Your task to perform on an android device: open app "Clock" (install if not already installed) Image 0: 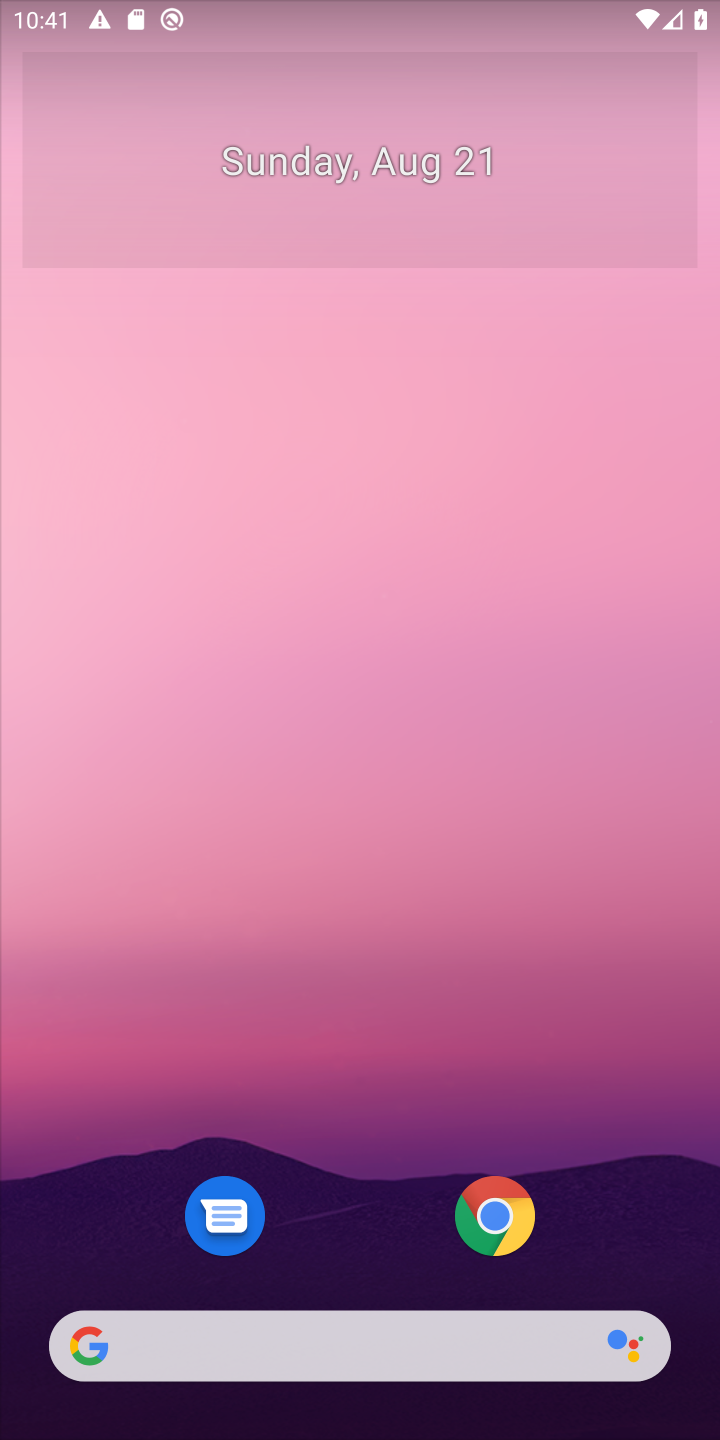
Step 0: drag from (225, 1306) to (0, 535)
Your task to perform on an android device: open app "Clock" (install if not already installed) Image 1: 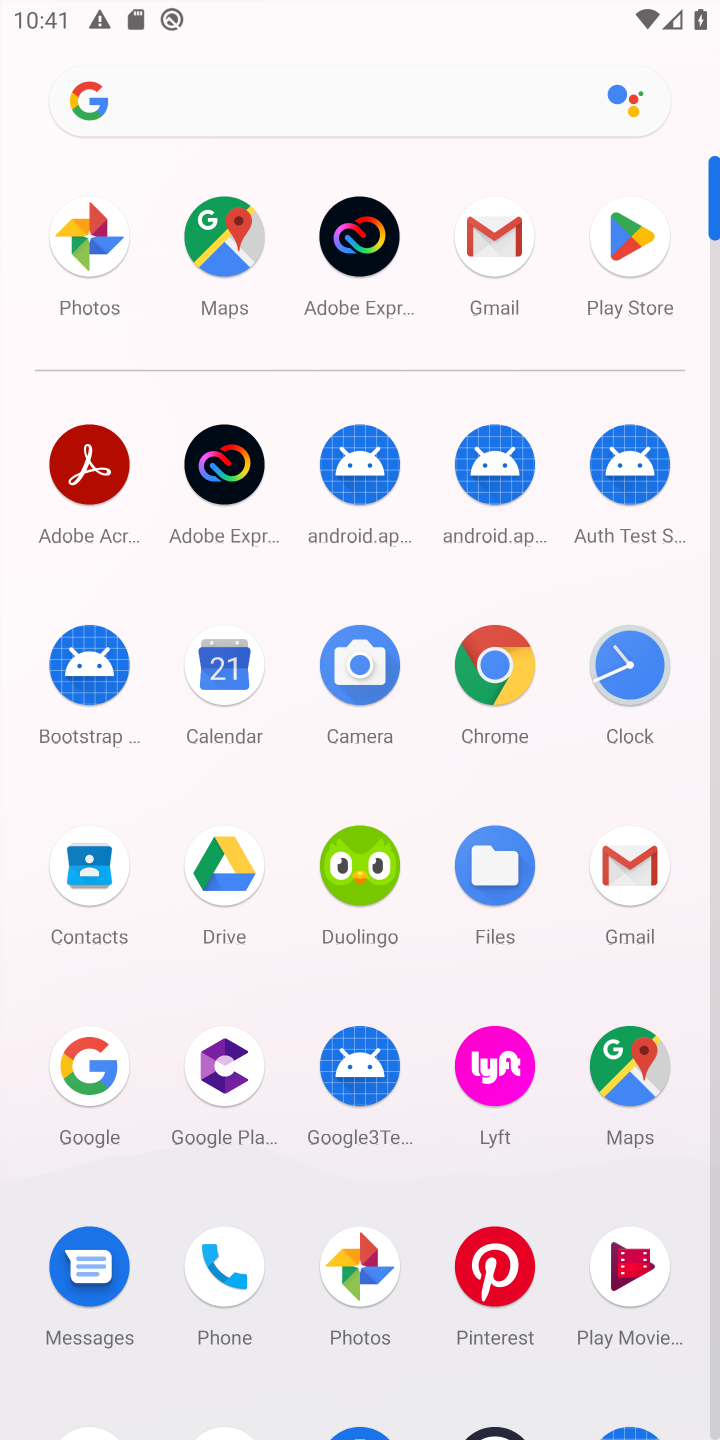
Step 1: click (616, 237)
Your task to perform on an android device: open app "Clock" (install if not already installed) Image 2: 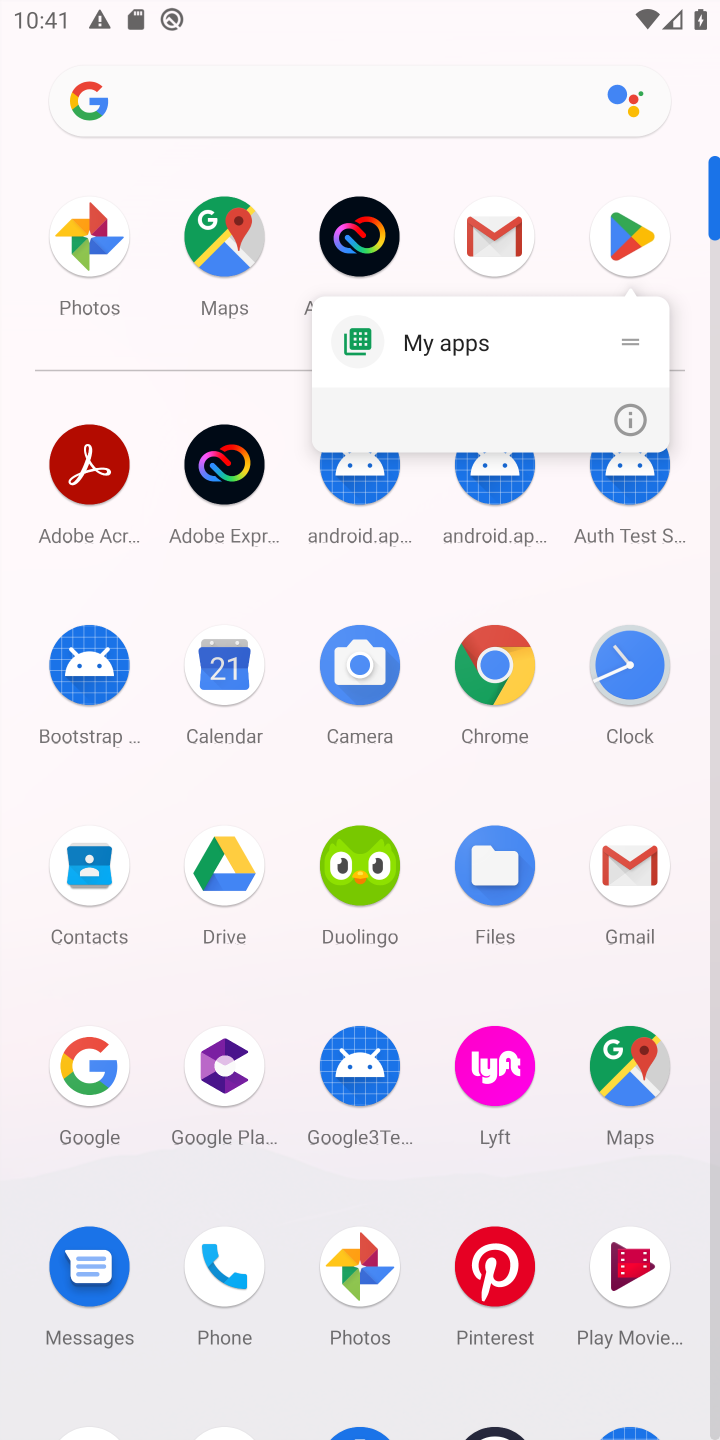
Step 2: click (616, 237)
Your task to perform on an android device: open app "Clock" (install if not already installed) Image 3: 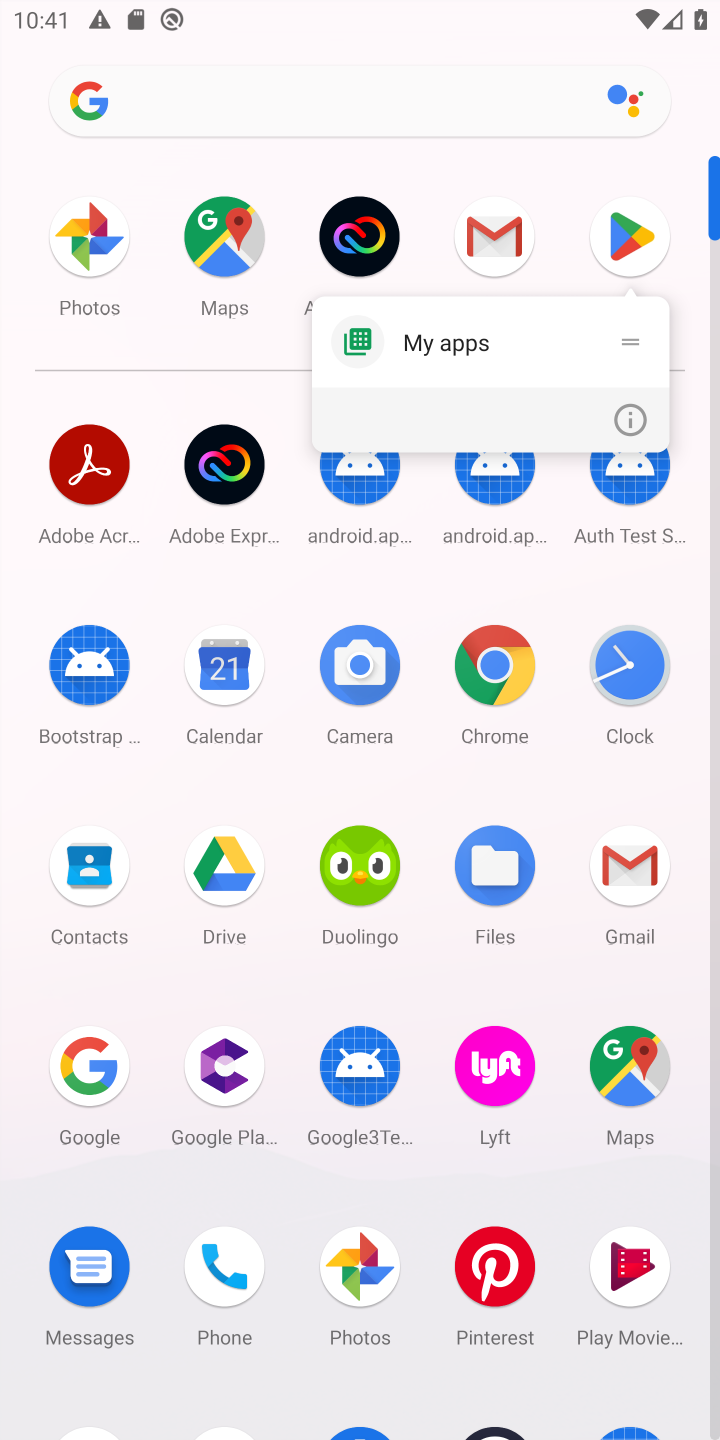
Step 3: click (617, 237)
Your task to perform on an android device: open app "Clock" (install if not already installed) Image 4: 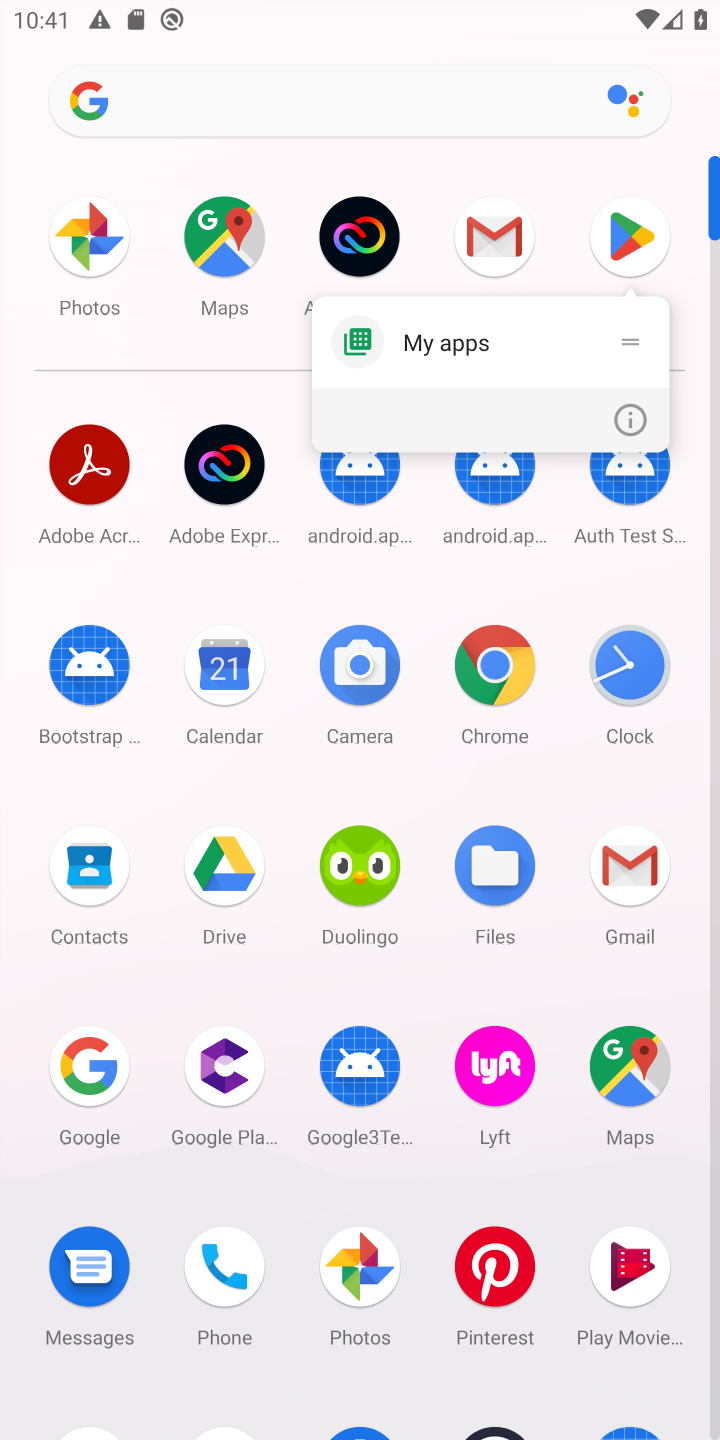
Step 4: click (638, 225)
Your task to perform on an android device: open app "Clock" (install if not already installed) Image 5: 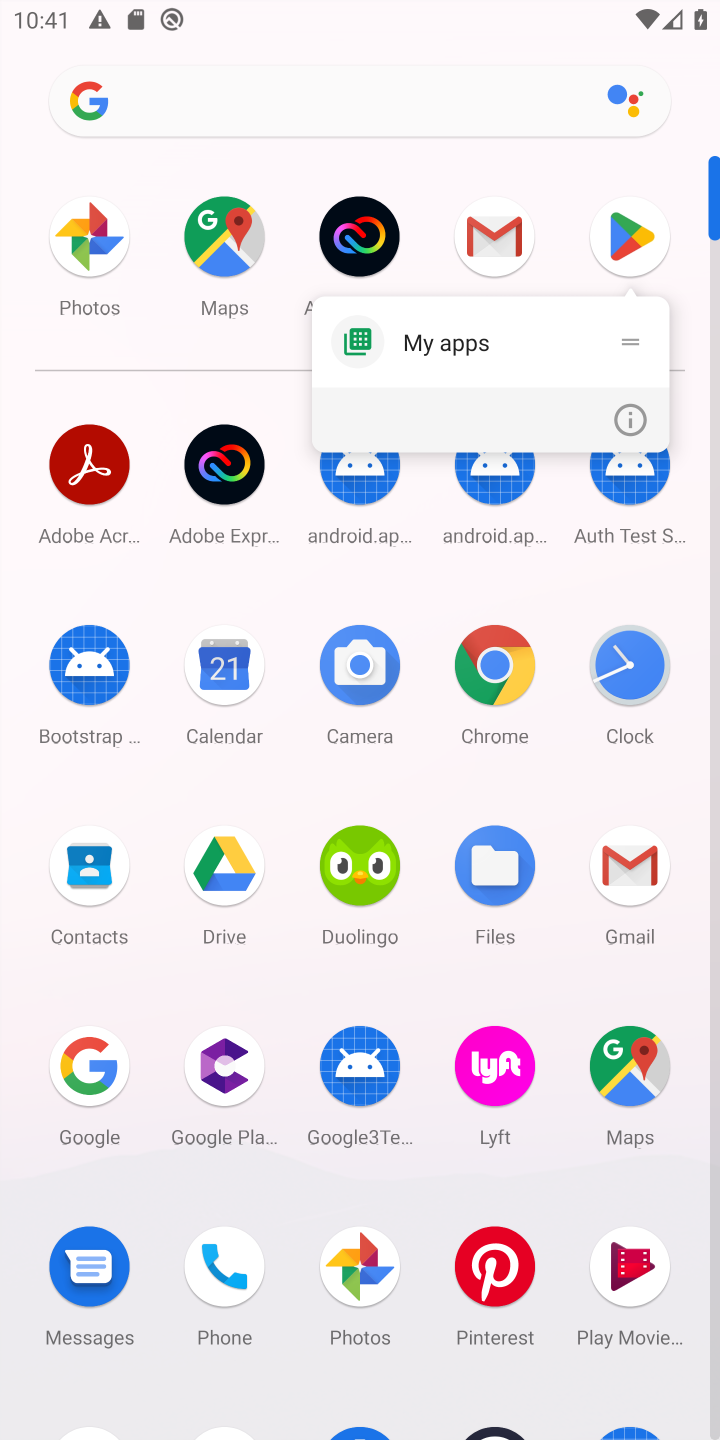
Step 5: click (640, 225)
Your task to perform on an android device: open app "Clock" (install if not already installed) Image 6: 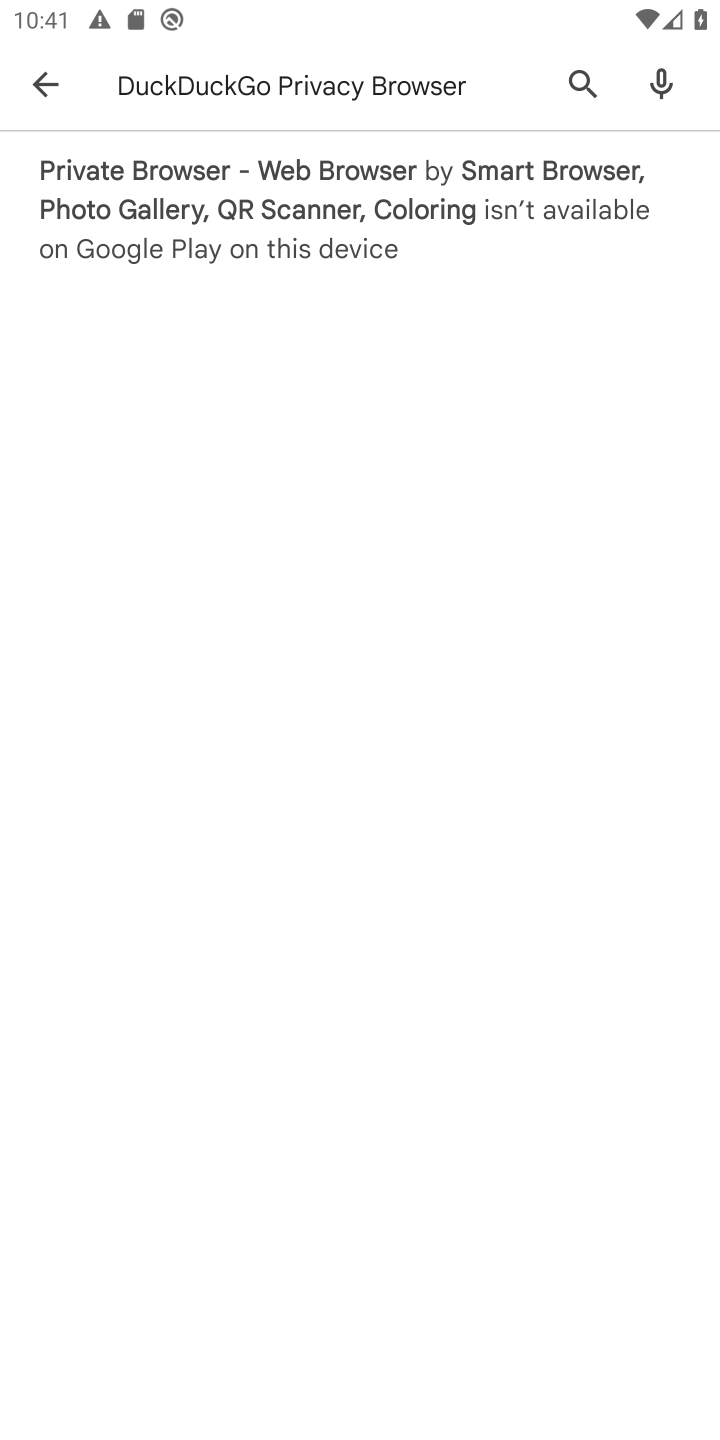
Step 6: press back button
Your task to perform on an android device: open app "Clock" (install if not already installed) Image 7: 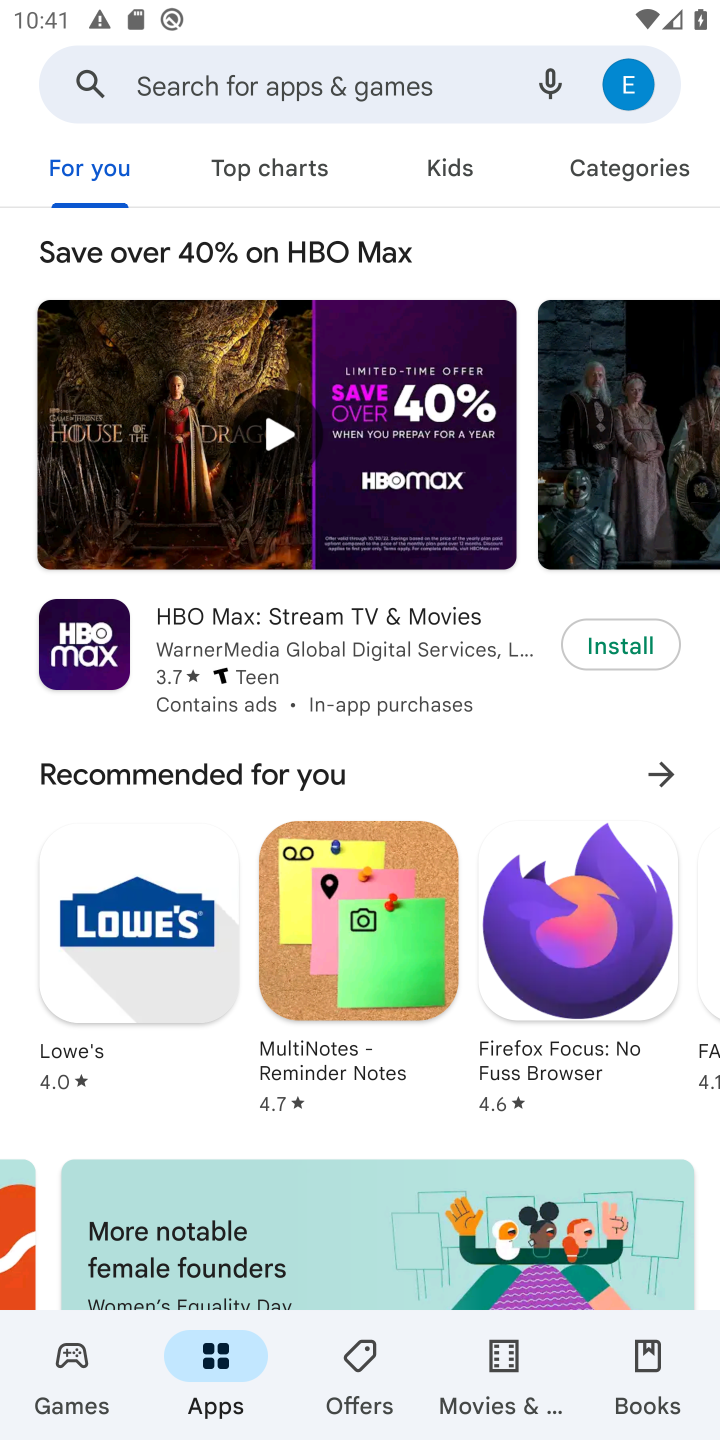
Step 7: click (228, 72)
Your task to perform on an android device: open app "Clock" (install if not already installed) Image 8: 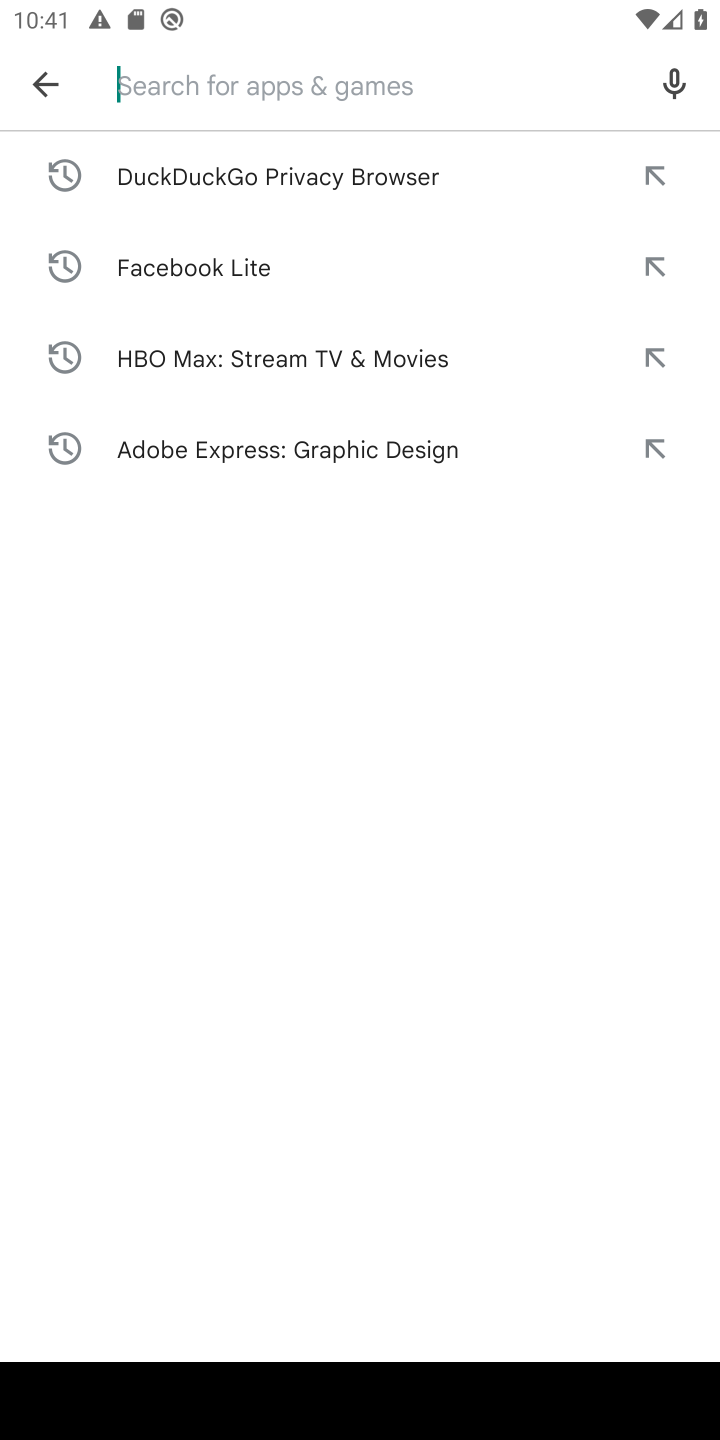
Step 8: type "Clock"
Your task to perform on an android device: open app "Clock" (install if not already installed) Image 9: 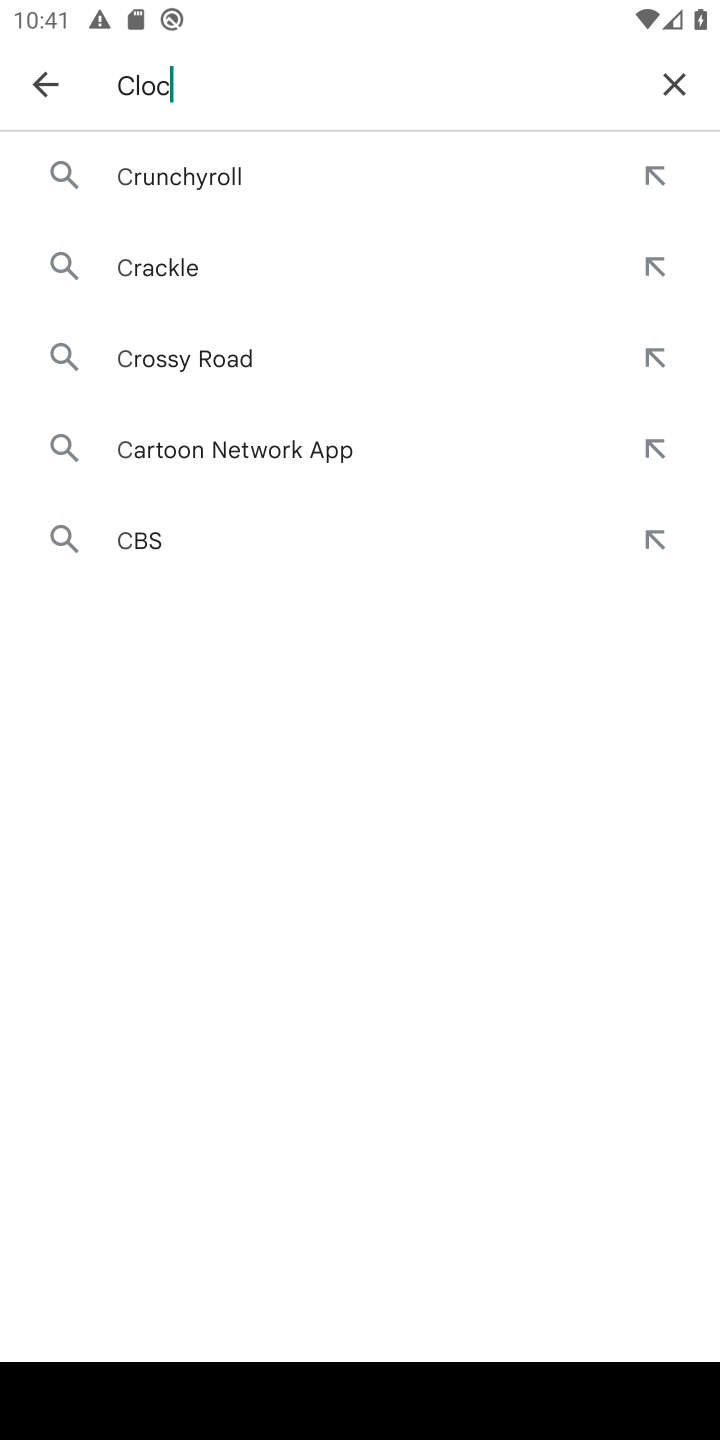
Step 9: press enter
Your task to perform on an android device: open app "Clock" (install if not already installed) Image 10: 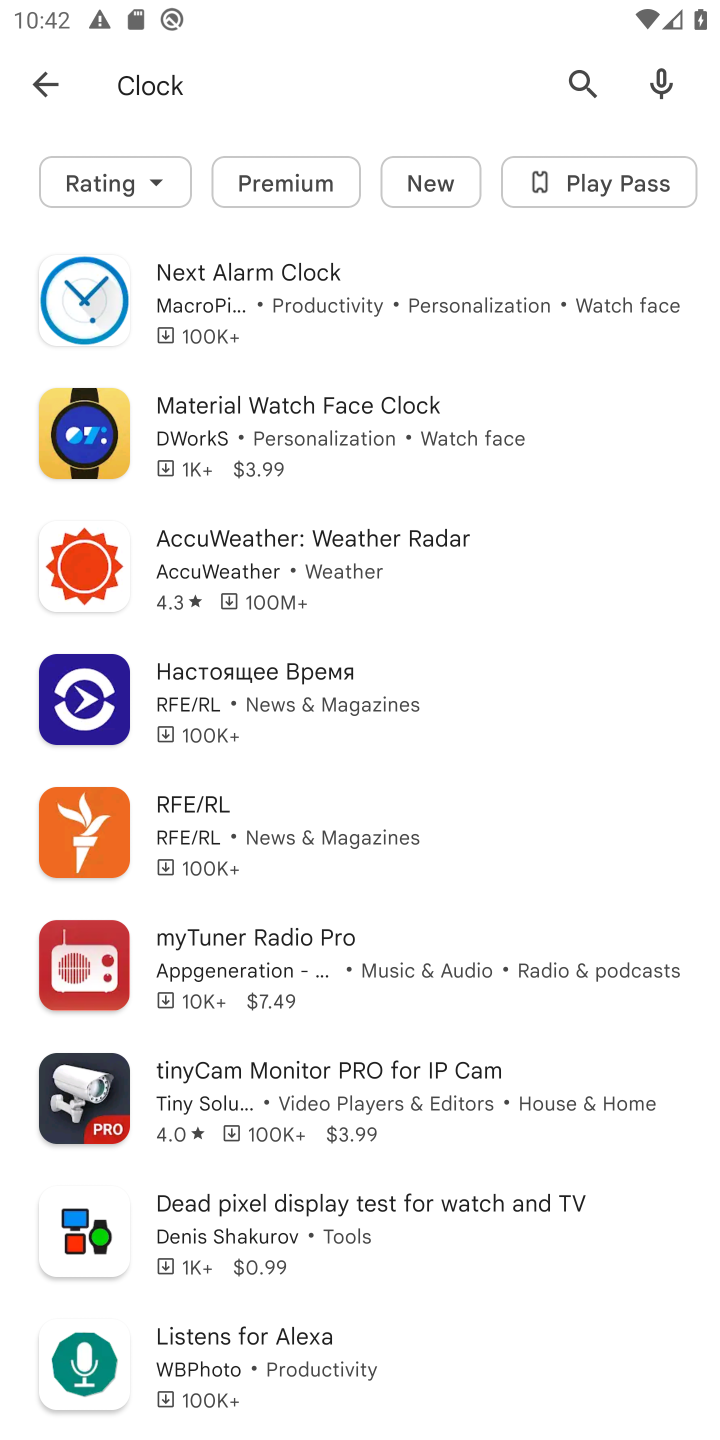
Step 10: click (298, 317)
Your task to perform on an android device: open app "Clock" (install if not already installed) Image 11: 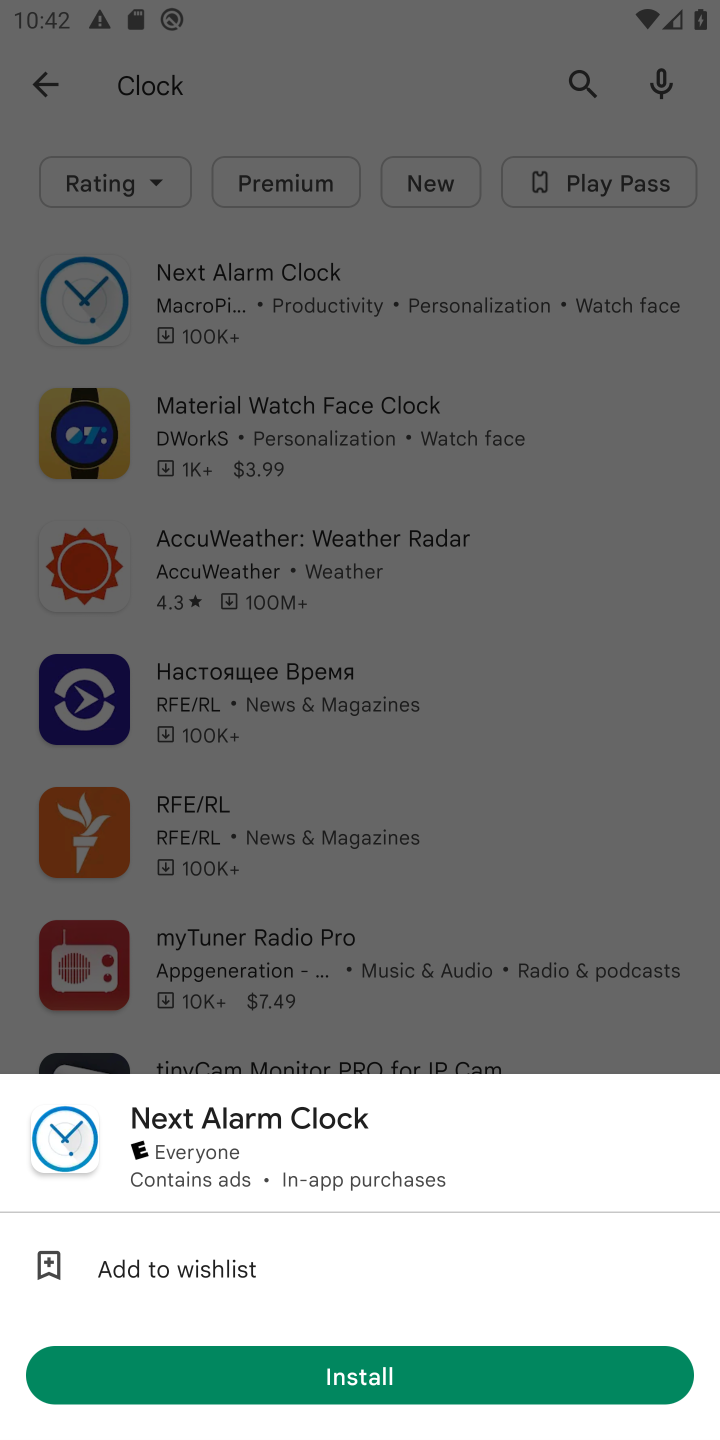
Step 11: click (366, 1391)
Your task to perform on an android device: open app "Clock" (install if not already installed) Image 12: 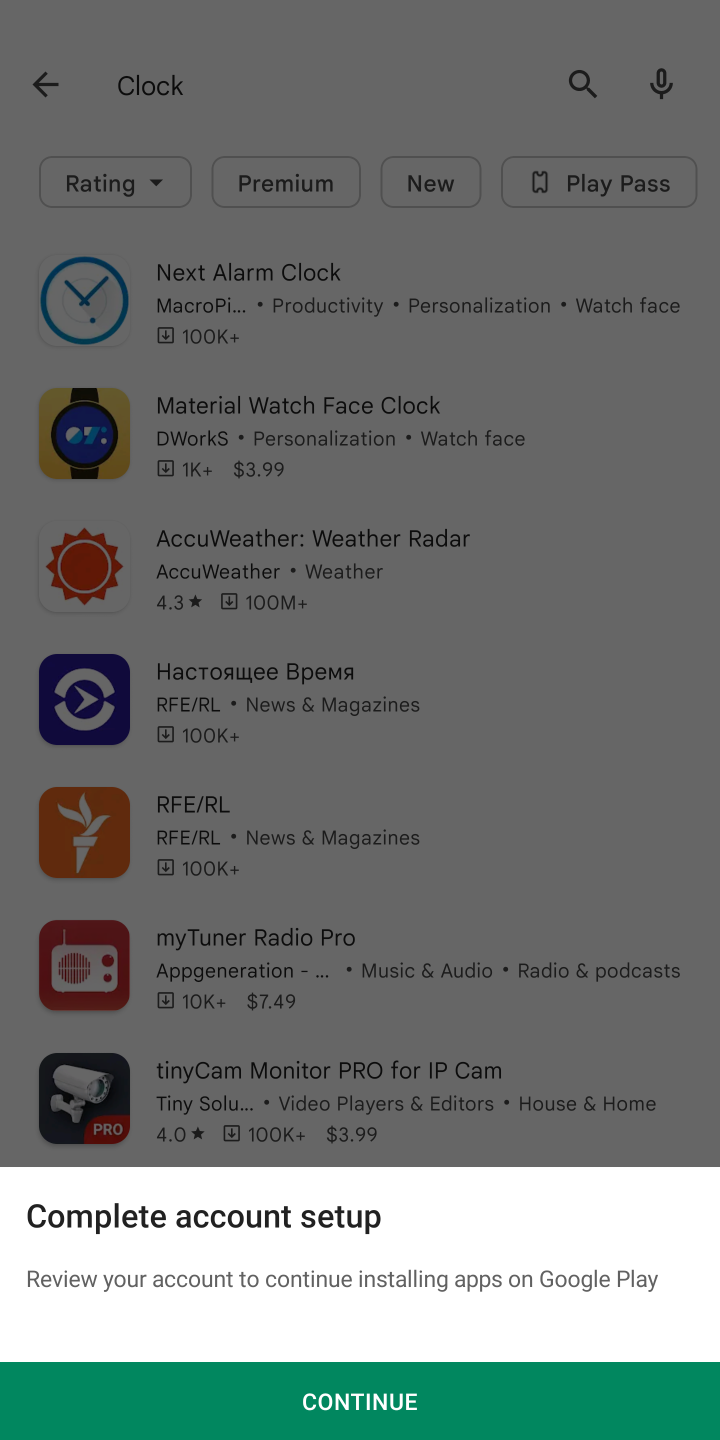
Step 12: click (388, 1378)
Your task to perform on an android device: open app "Clock" (install if not already installed) Image 13: 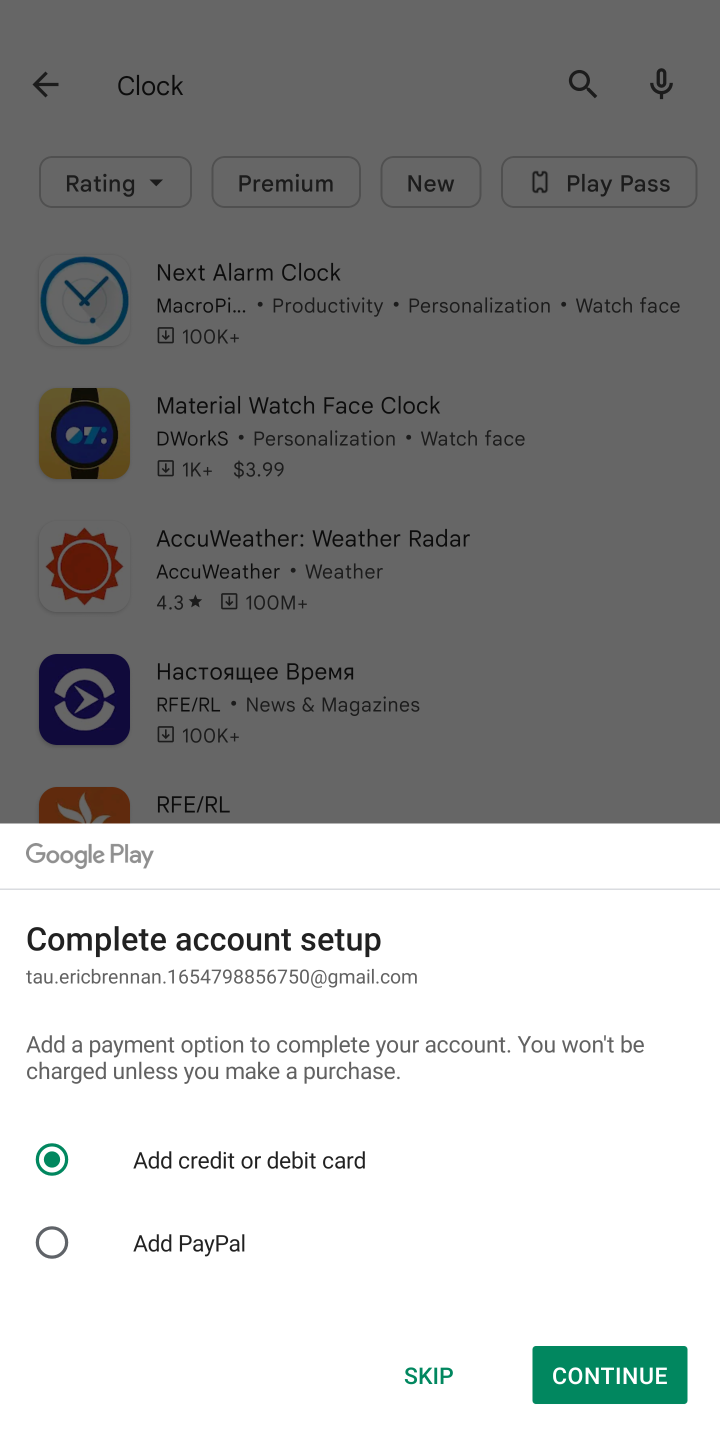
Step 13: click (423, 1387)
Your task to perform on an android device: open app "Clock" (install if not already installed) Image 14: 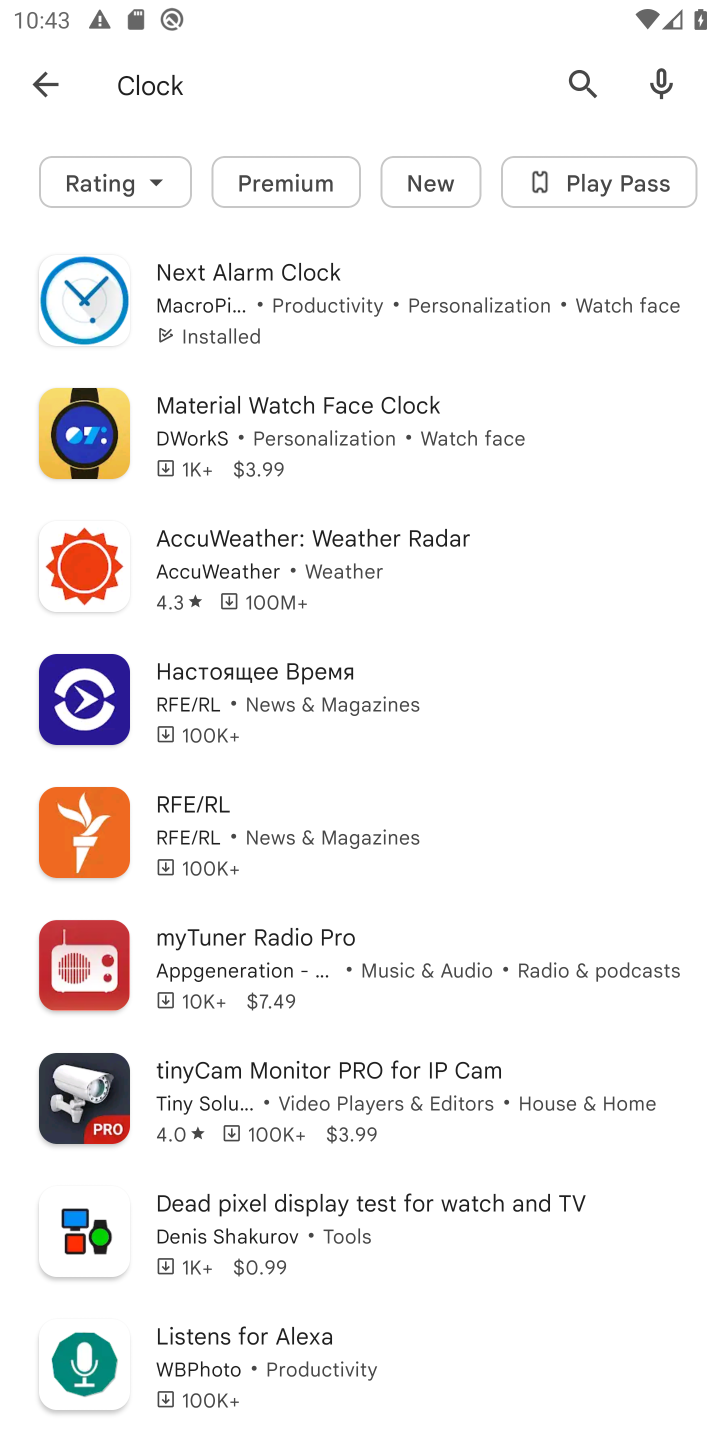
Step 14: click (256, 321)
Your task to perform on an android device: open app "Clock" (install if not already installed) Image 15: 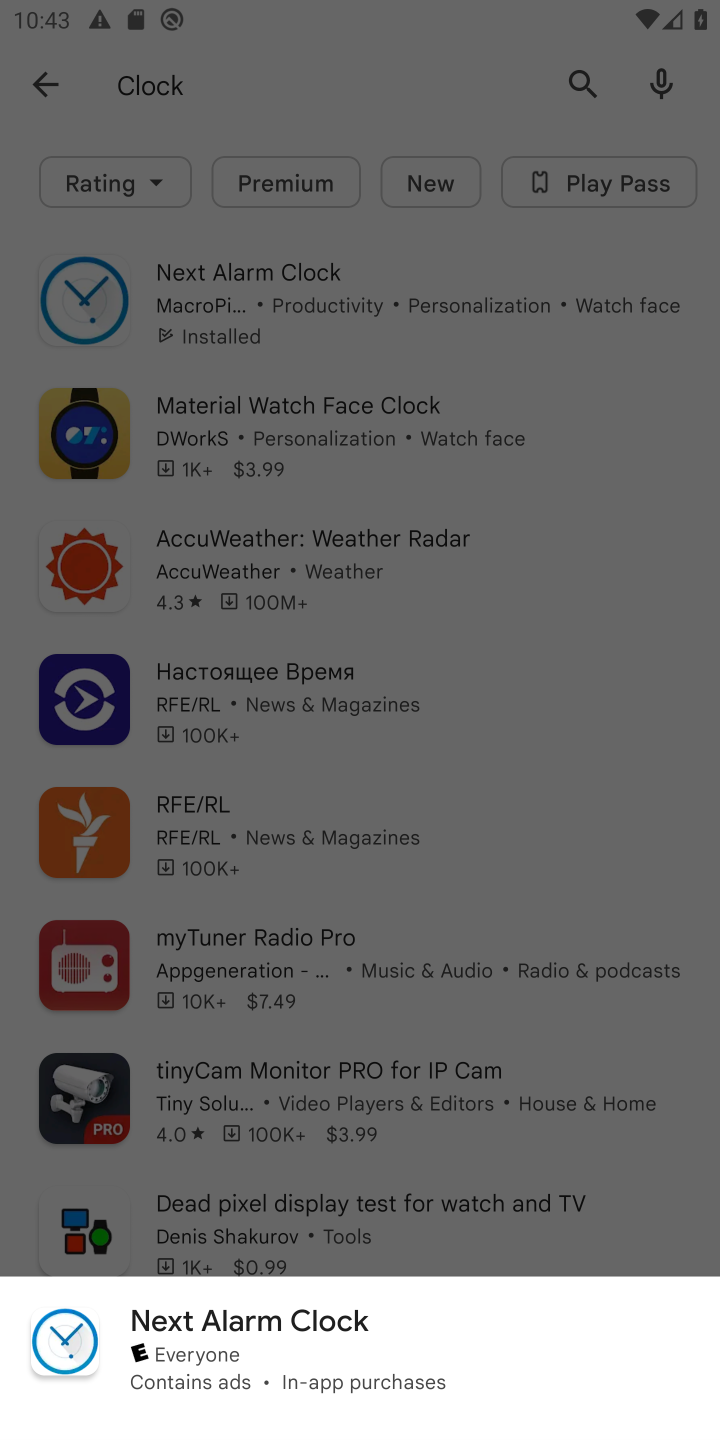
Step 15: task complete